Your task to perform on an android device: toggle pop-ups in chrome Image 0: 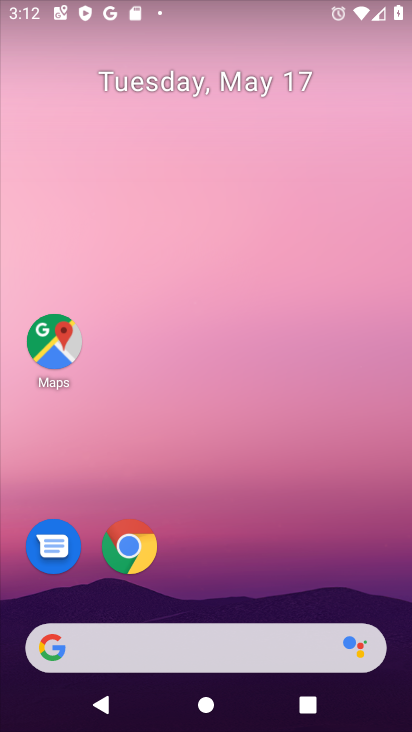
Step 0: click (113, 538)
Your task to perform on an android device: toggle pop-ups in chrome Image 1: 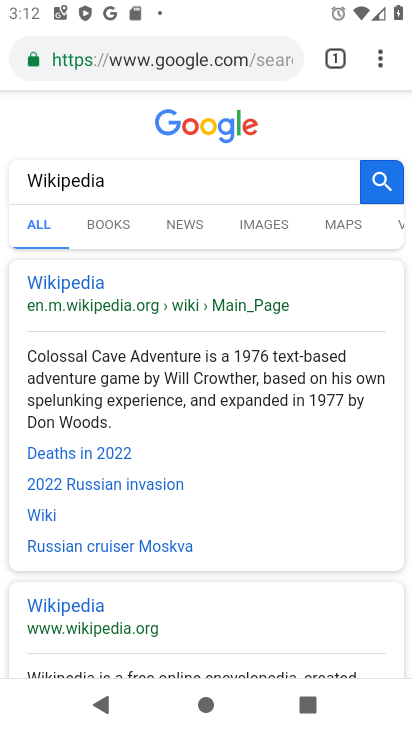
Step 1: click (375, 54)
Your task to perform on an android device: toggle pop-ups in chrome Image 2: 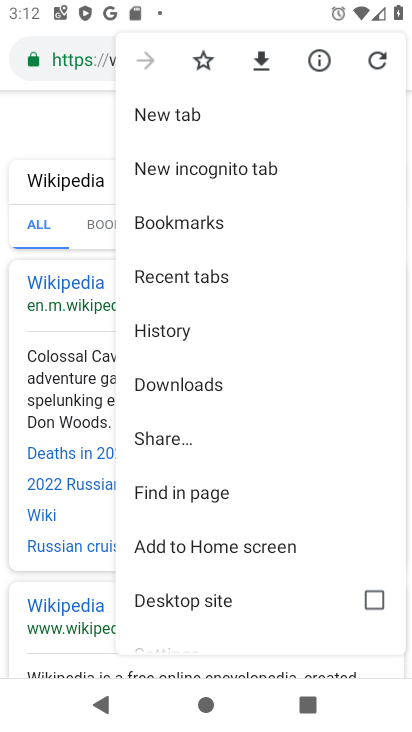
Step 2: drag from (267, 608) to (266, 317)
Your task to perform on an android device: toggle pop-ups in chrome Image 3: 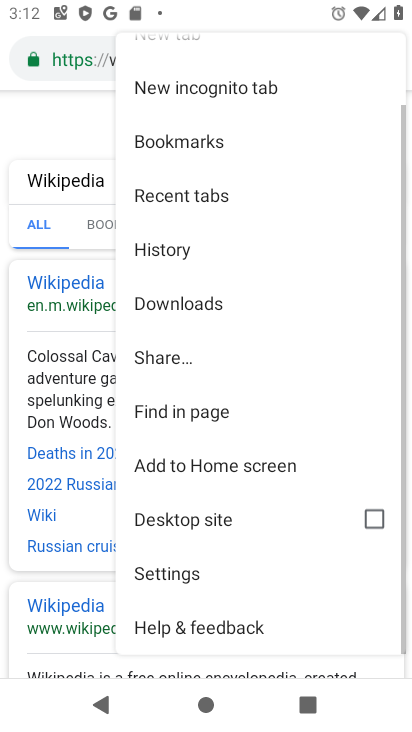
Step 3: click (169, 573)
Your task to perform on an android device: toggle pop-ups in chrome Image 4: 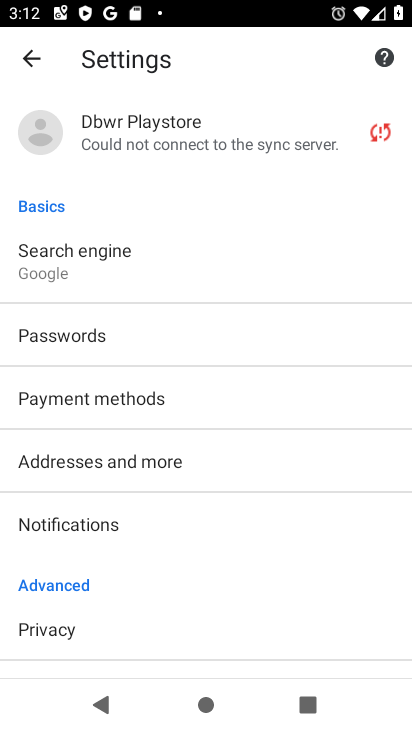
Step 4: drag from (173, 601) to (147, 429)
Your task to perform on an android device: toggle pop-ups in chrome Image 5: 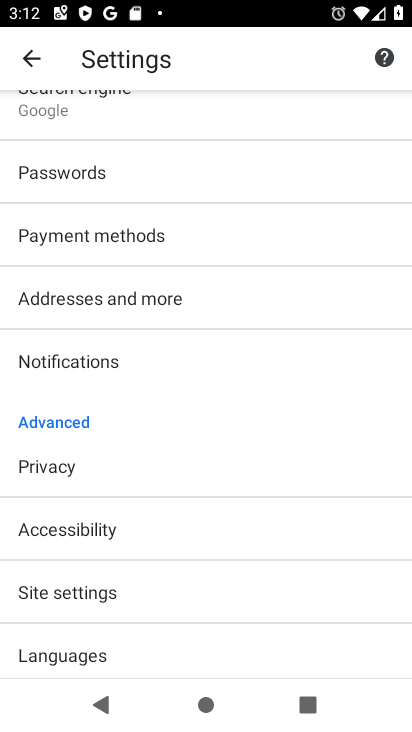
Step 5: click (75, 598)
Your task to perform on an android device: toggle pop-ups in chrome Image 6: 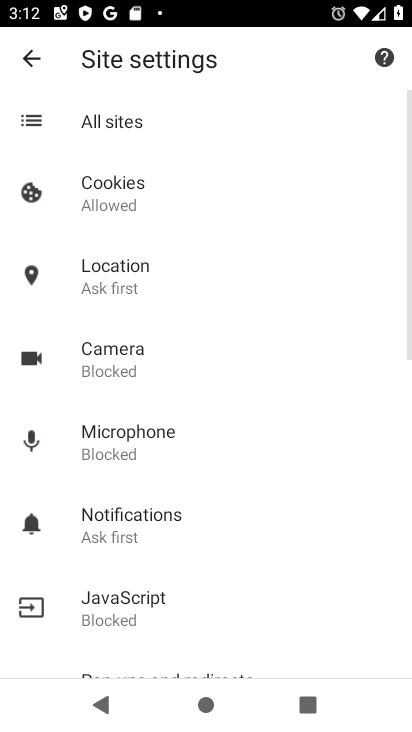
Step 6: drag from (261, 611) to (280, 356)
Your task to perform on an android device: toggle pop-ups in chrome Image 7: 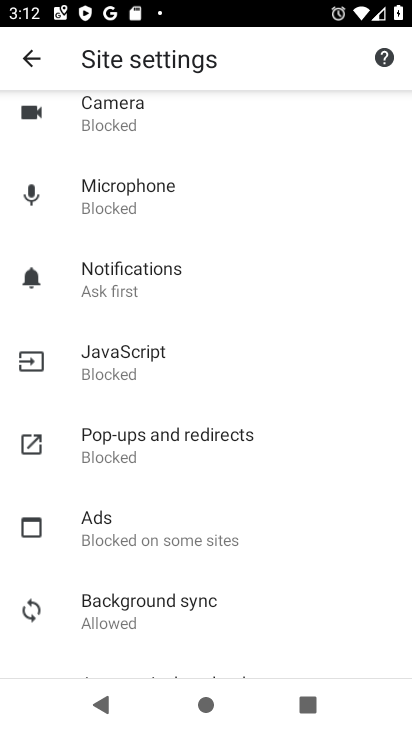
Step 7: click (87, 440)
Your task to perform on an android device: toggle pop-ups in chrome Image 8: 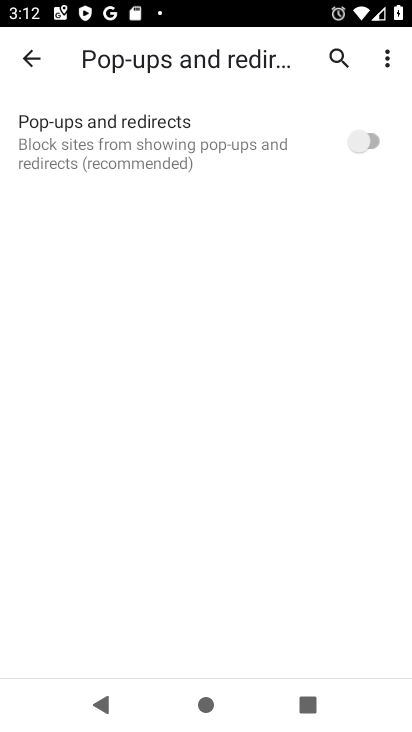
Step 8: click (373, 139)
Your task to perform on an android device: toggle pop-ups in chrome Image 9: 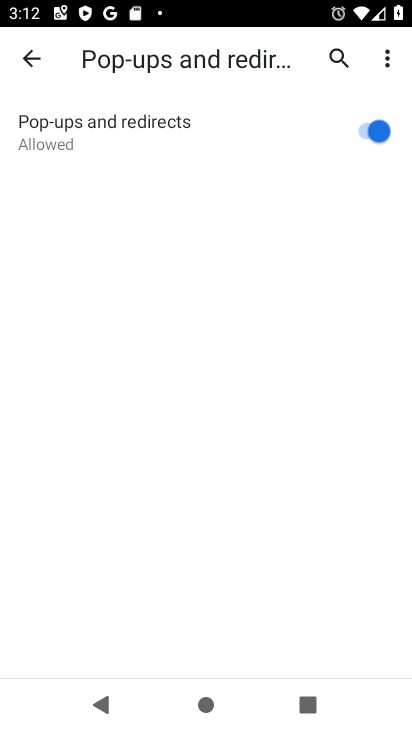
Step 9: task complete